Your task to perform on an android device: turn off wifi Image 0: 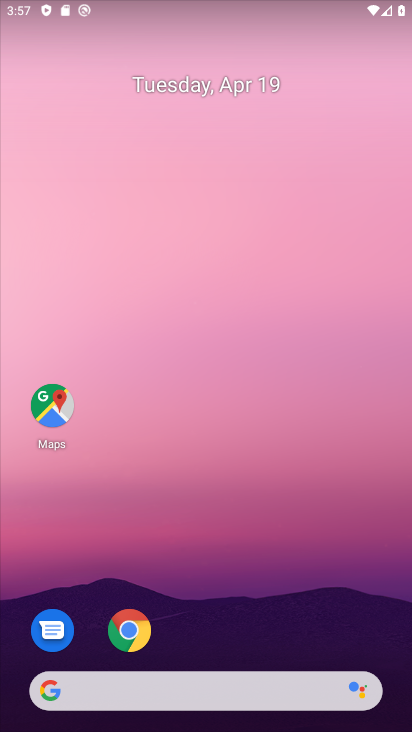
Step 0: drag from (212, 362) to (165, 118)
Your task to perform on an android device: turn off wifi Image 1: 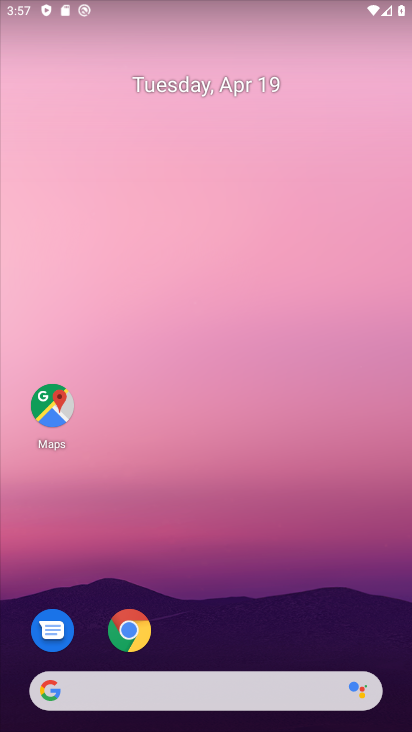
Step 1: drag from (340, 443) to (272, 211)
Your task to perform on an android device: turn off wifi Image 2: 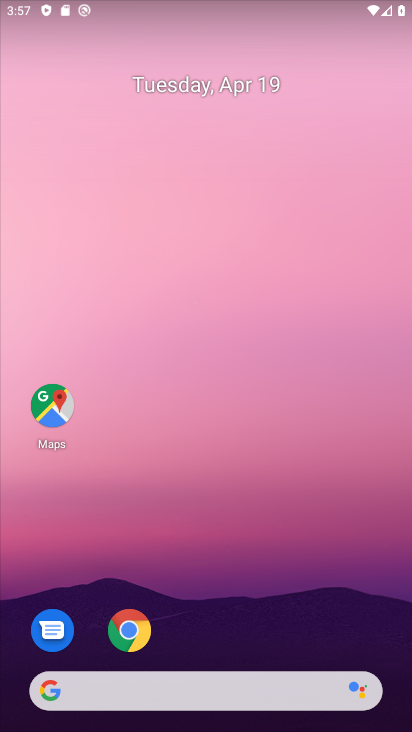
Step 2: drag from (301, 475) to (222, 54)
Your task to perform on an android device: turn off wifi Image 3: 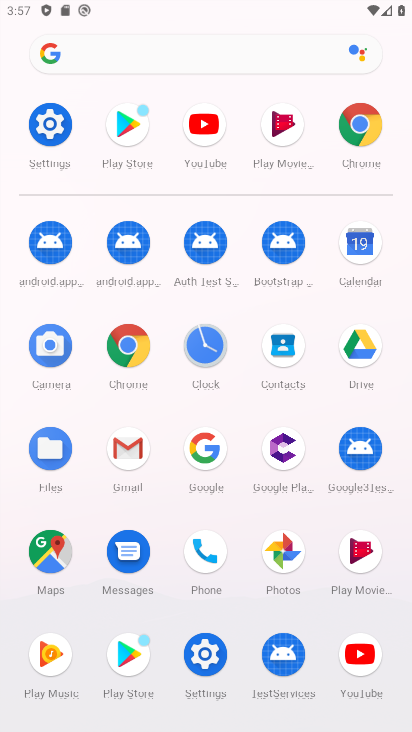
Step 3: click (46, 126)
Your task to perform on an android device: turn off wifi Image 4: 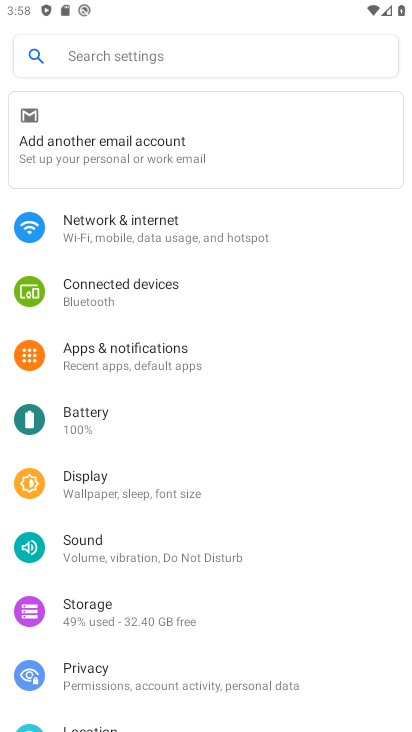
Step 4: click (86, 226)
Your task to perform on an android device: turn off wifi Image 5: 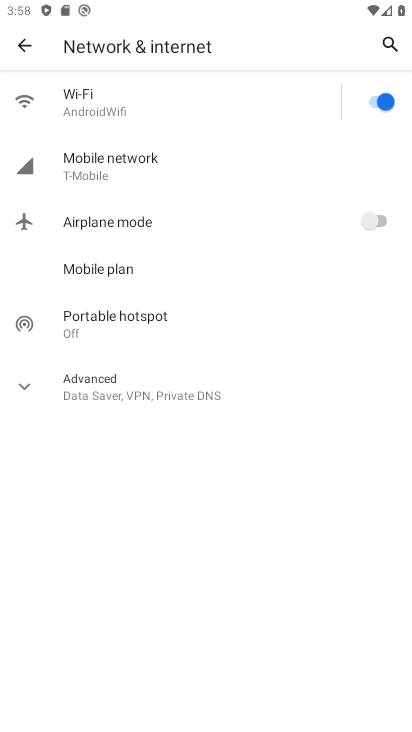
Step 5: click (371, 97)
Your task to perform on an android device: turn off wifi Image 6: 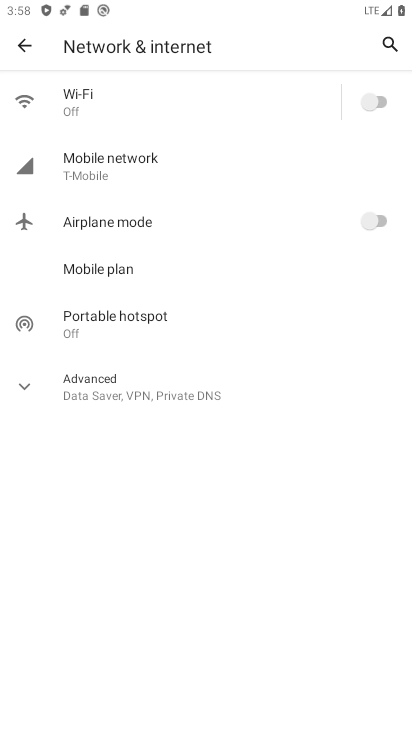
Step 6: task complete